Your task to perform on an android device: change the clock display to show seconds Image 0: 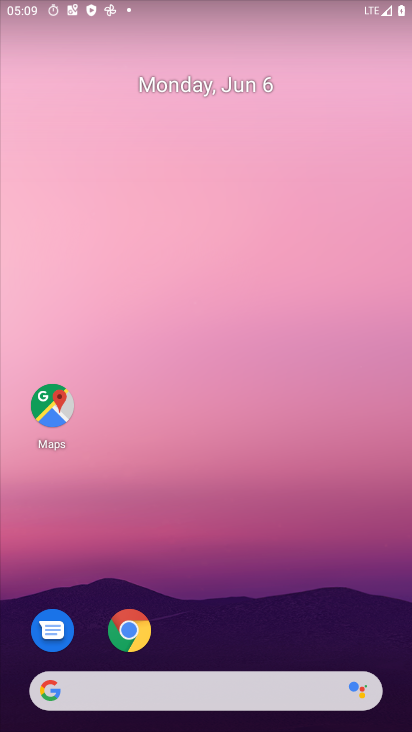
Step 0: drag from (211, 631) to (242, 112)
Your task to perform on an android device: change the clock display to show seconds Image 1: 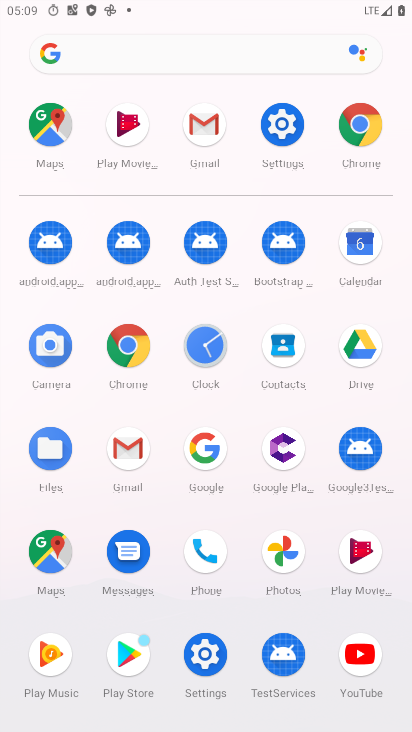
Step 1: click (199, 349)
Your task to perform on an android device: change the clock display to show seconds Image 2: 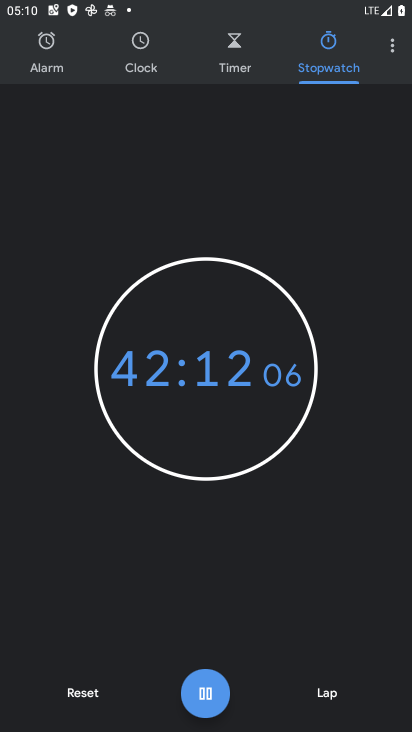
Step 2: click (392, 46)
Your task to perform on an android device: change the clock display to show seconds Image 3: 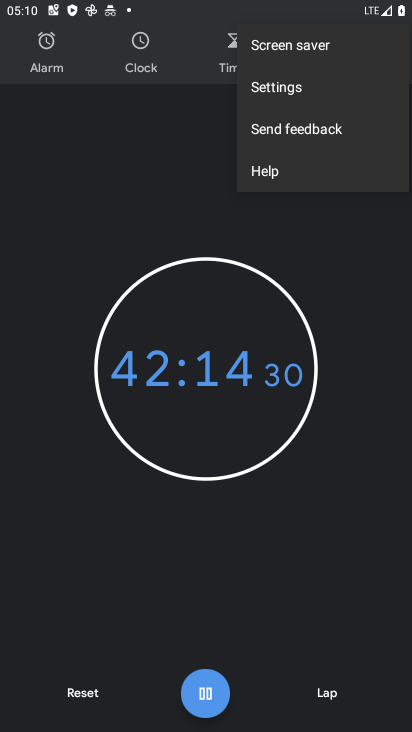
Step 3: click (290, 95)
Your task to perform on an android device: change the clock display to show seconds Image 4: 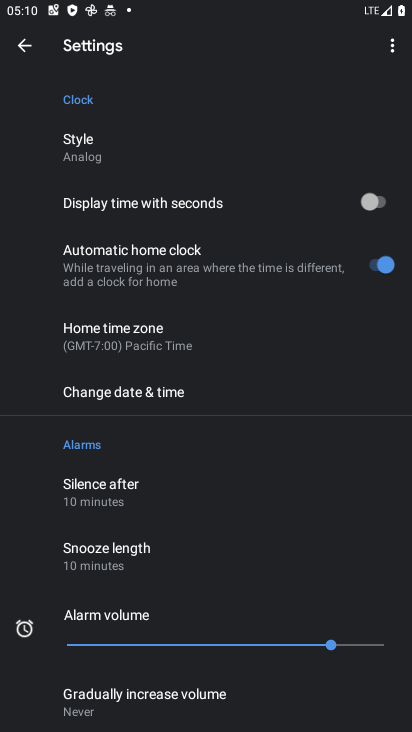
Step 4: click (361, 200)
Your task to perform on an android device: change the clock display to show seconds Image 5: 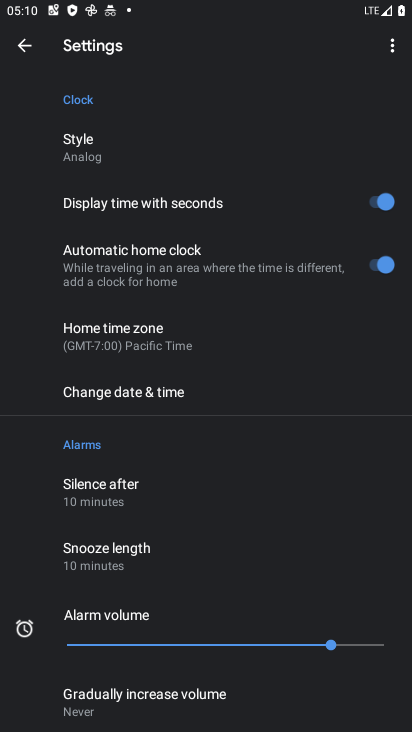
Step 5: task complete